Your task to perform on an android device: Open calendar and show me the fourth week of next month Image 0: 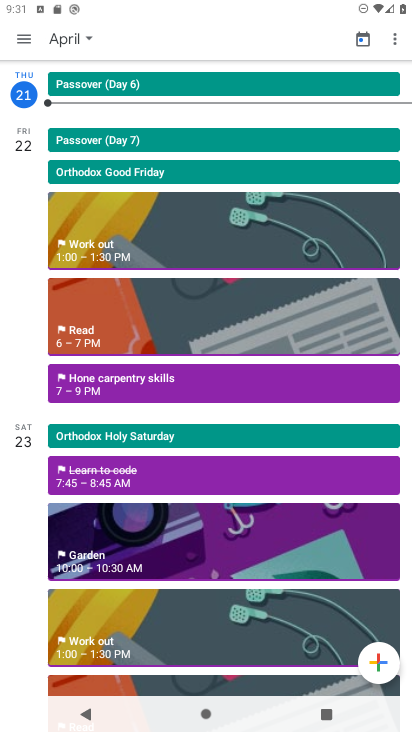
Step 0: click (78, 37)
Your task to perform on an android device: Open calendar and show me the fourth week of next month Image 1: 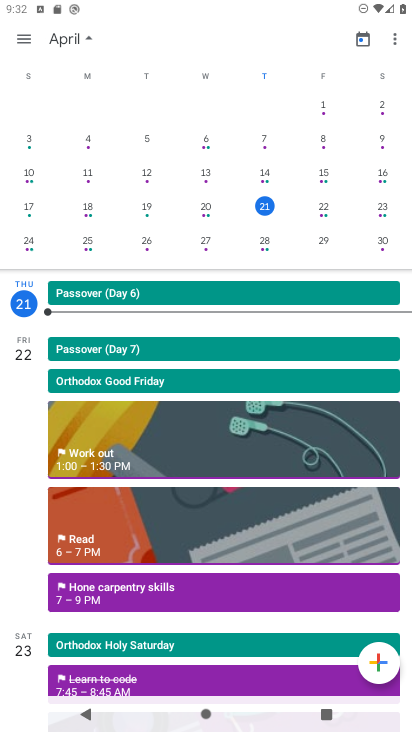
Step 1: drag from (384, 182) to (40, 120)
Your task to perform on an android device: Open calendar and show me the fourth week of next month Image 2: 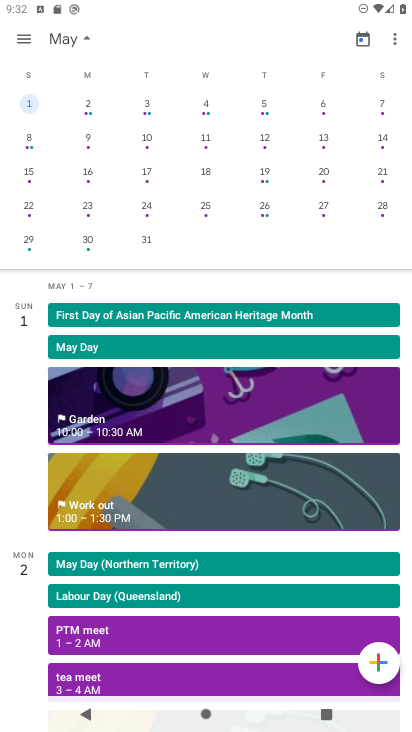
Step 2: click (140, 217)
Your task to perform on an android device: Open calendar and show me the fourth week of next month Image 3: 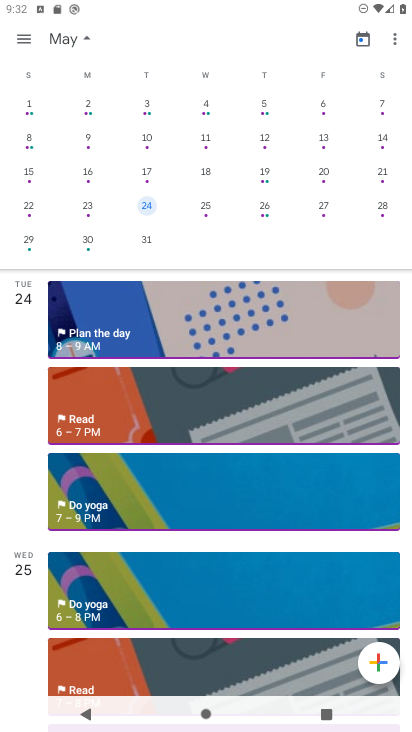
Step 3: task complete